Your task to perform on an android device: Open Chrome and go to the settings page Image 0: 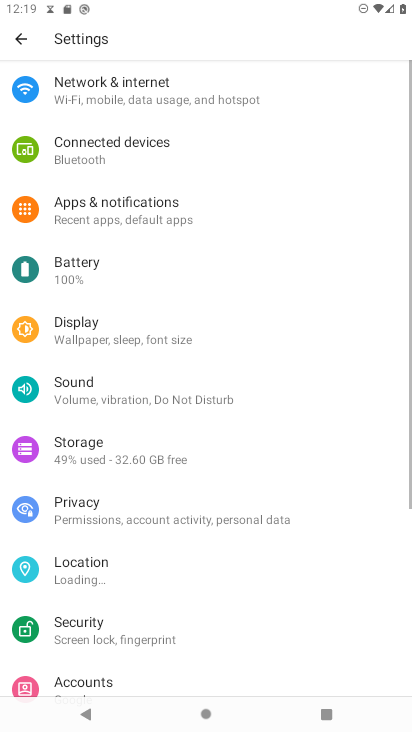
Step 0: press home button
Your task to perform on an android device: Open Chrome and go to the settings page Image 1: 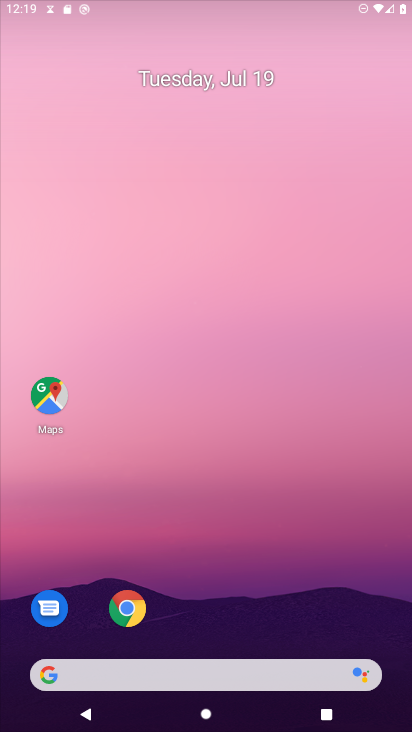
Step 1: drag from (301, 608) to (136, 374)
Your task to perform on an android device: Open Chrome and go to the settings page Image 2: 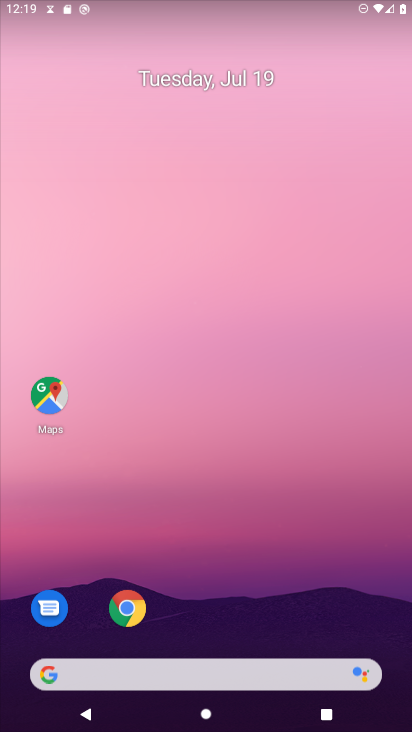
Step 2: click (128, 372)
Your task to perform on an android device: Open Chrome and go to the settings page Image 3: 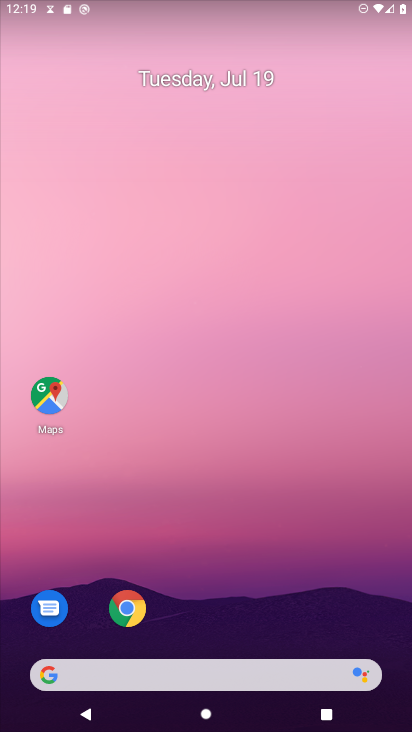
Step 3: drag from (168, 673) to (284, 23)
Your task to perform on an android device: Open Chrome and go to the settings page Image 4: 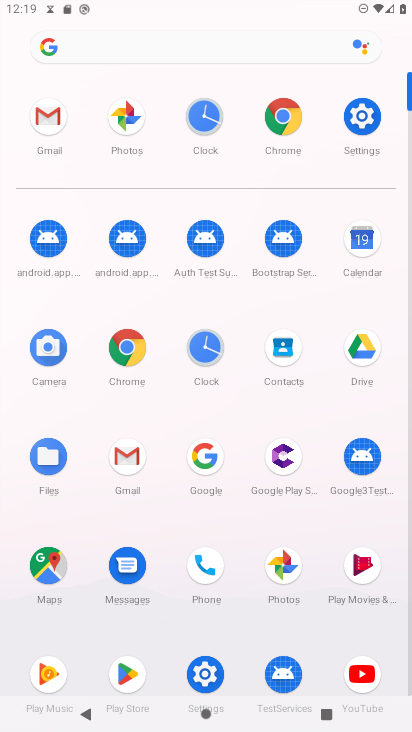
Step 4: click (115, 360)
Your task to perform on an android device: Open Chrome and go to the settings page Image 5: 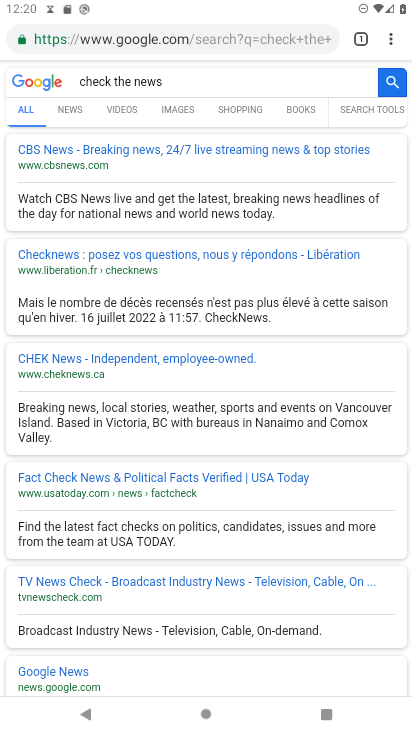
Step 5: press home button
Your task to perform on an android device: Open Chrome and go to the settings page Image 6: 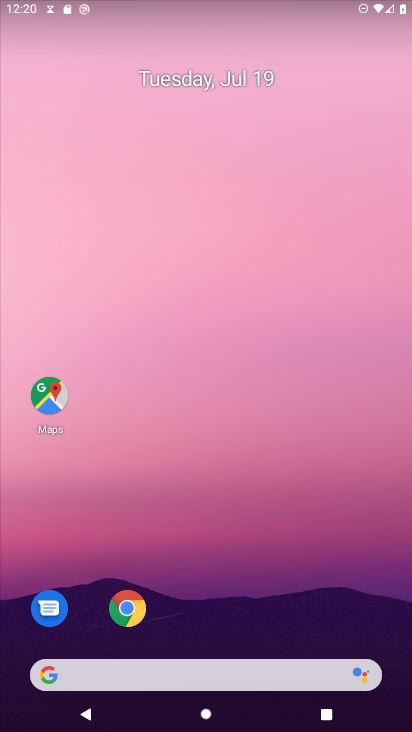
Step 6: drag from (280, 673) to (323, 3)
Your task to perform on an android device: Open Chrome and go to the settings page Image 7: 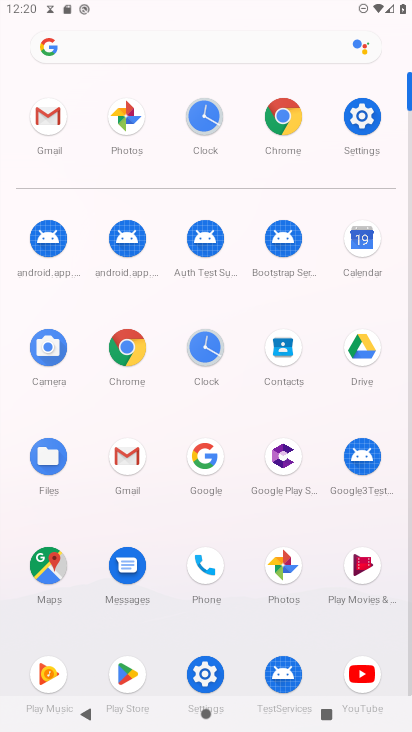
Step 7: click (316, 557)
Your task to perform on an android device: Open Chrome and go to the settings page Image 8: 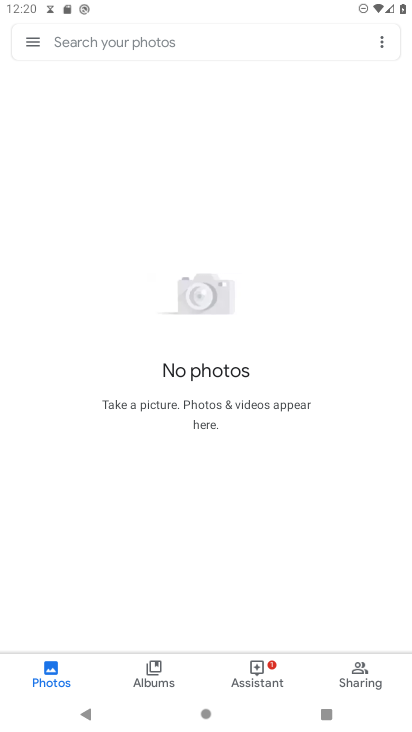
Step 8: press home button
Your task to perform on an android device: Open Chrome and go to the settings page Image 9: 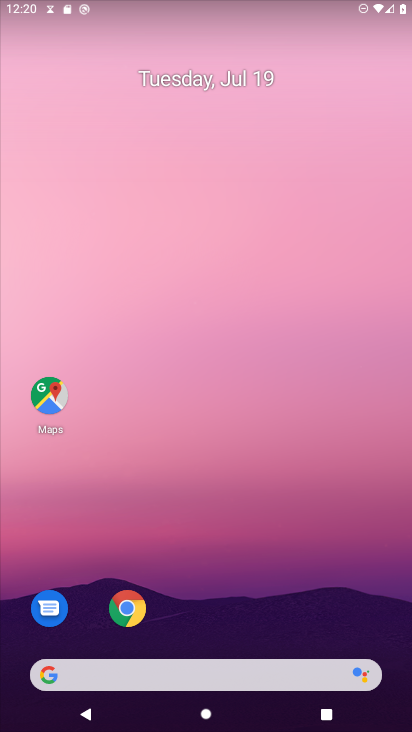
Step 9: drag from (75, 655) to (173, 262)
Your task to perform on an android device: Open Chrome and go to the settings page Image 10: 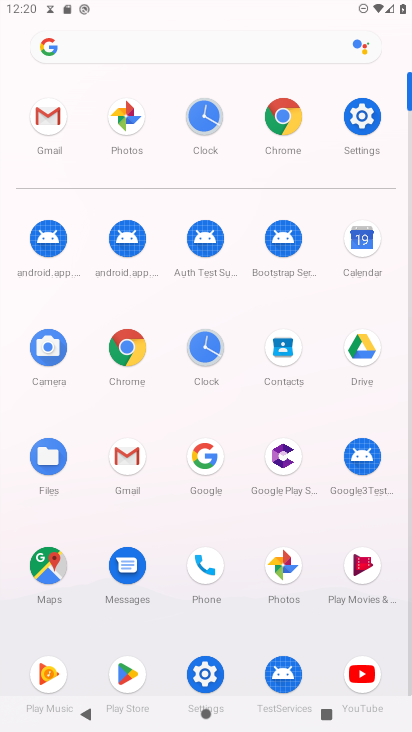
Step 10: click (128, 347)
Your task to perform on an android device: Open Chrome and go to the settings page Image 11: 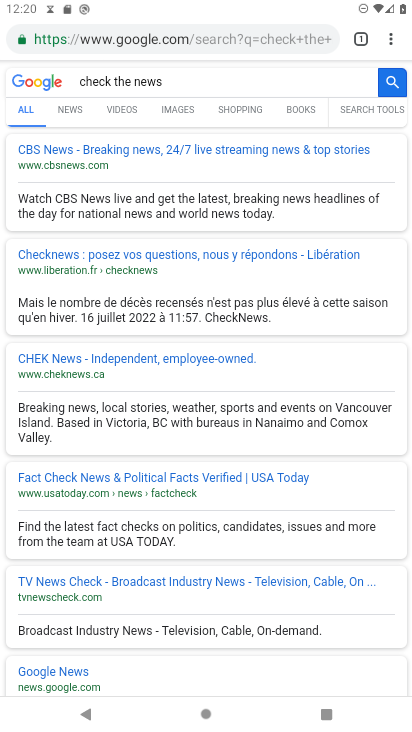
Step 11: task complete